Your task to perform on an android device: Turn off the flashlight Image 0: 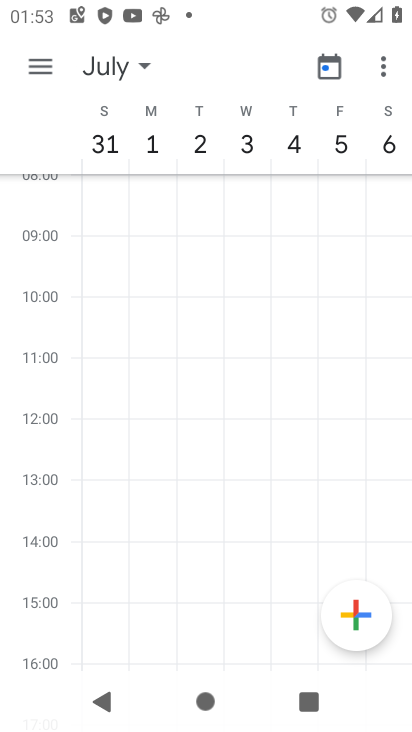
Step 0: press home button
Your task to perform on an android device: Turn off the flashlight Image 1: 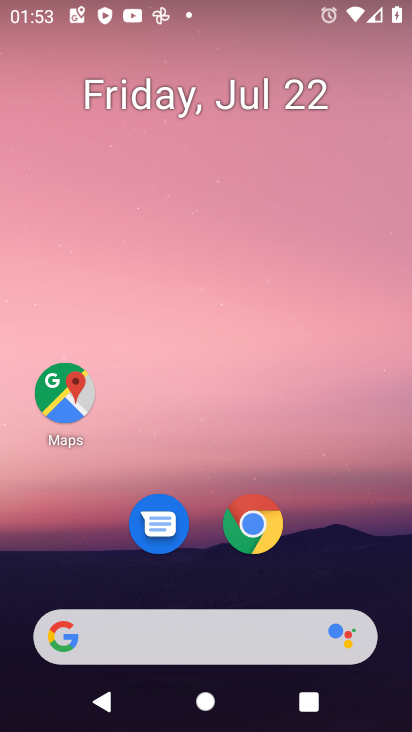
Step 1: task complete